Your task to perform on an android device: Go to wifi settings Image 0: 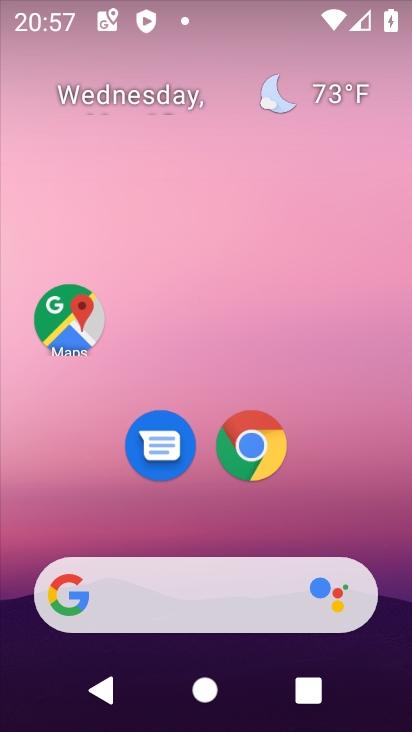
Step 0: drag from (227, 347) to (234, 163)
Your task to perform on an android device: Go to wifi settings Image 1: 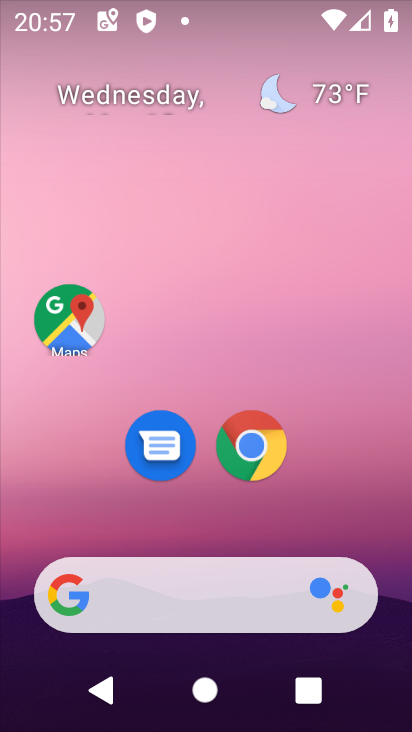
Step 1: drag from (241, 541) to (266, 84)
Your task to perform on an android device: Go to wifi settings Image 2: 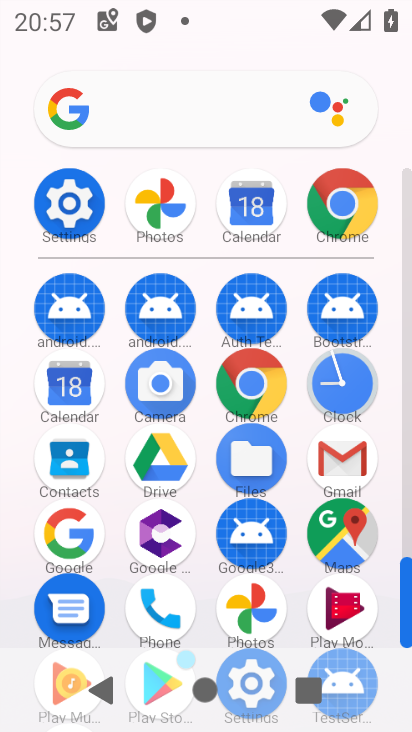
Step 2: click (85, 198)
Your task to perform on an android device: Go to wifi settings Image 3: 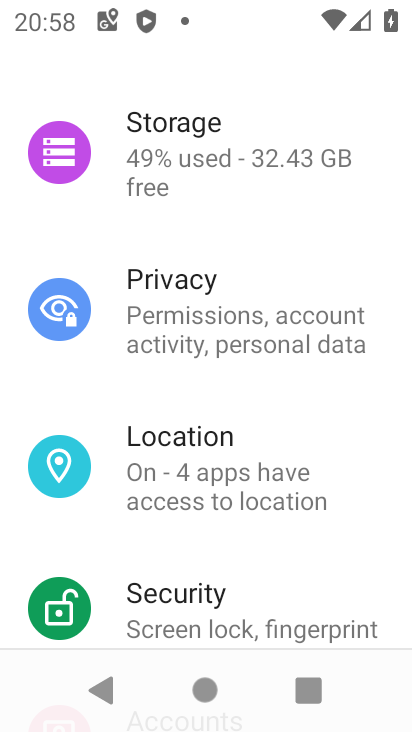
Step 3: drag from (212, 243) to (184, 604)
Your task to perform on an android device: Go to wifi settings Image 4: 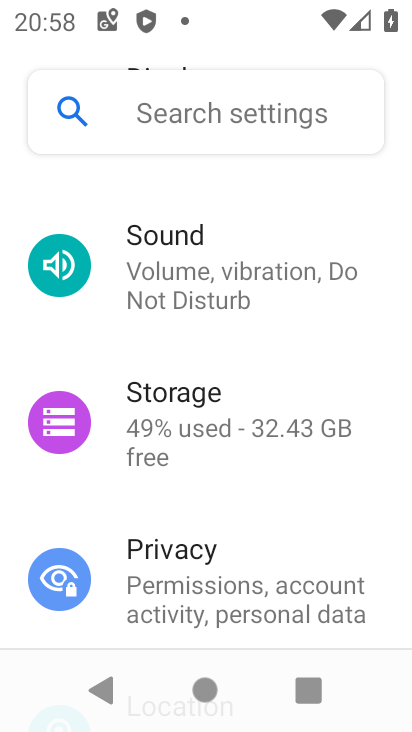
Step 4: drag from (163, 203) to (207, 630)
Your task to perform on an android device: Go to wifi settings Image 5: 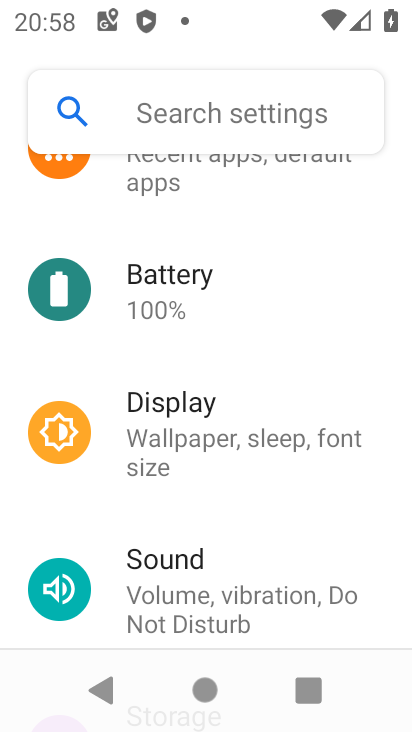
Step 5: drag from (191, 201) to (192, 608)
Your task to perform on an android device: Go to wifi settings Image 6: 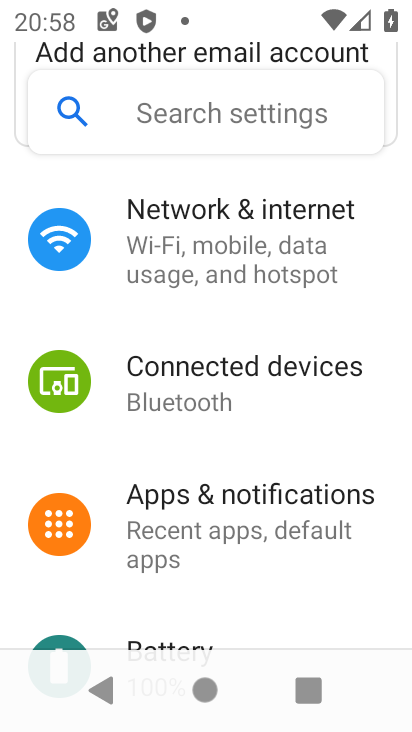
Step 6: click (161, 234)
Your task to perform on an android device: Go to wifi settings Image 7: 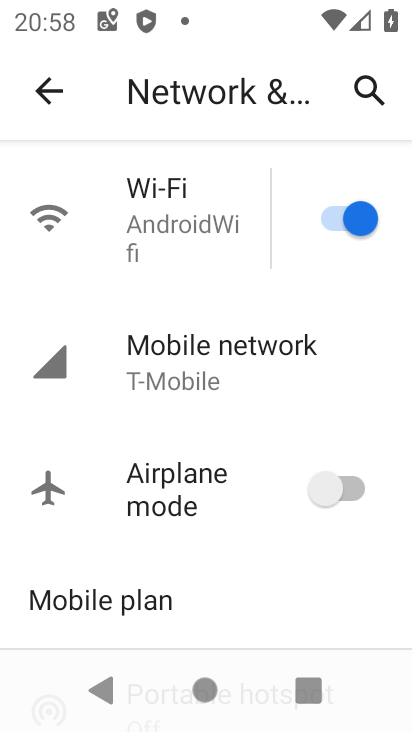
Step 7: task complete